Your task to perform on an android device: Go to location settings Image 0: 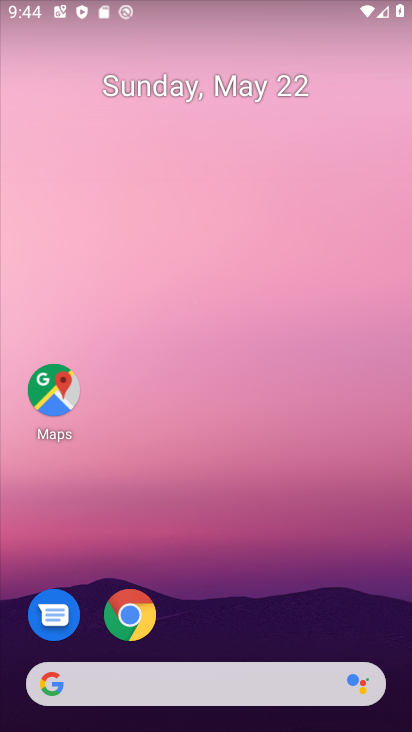
Step 0: drag from (327, 558) to (320, 0)
Your task to perform on an android device: Go to location settings Image 1: 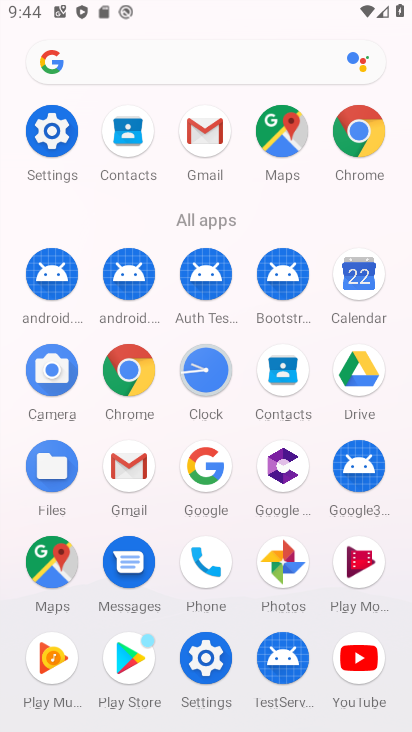
Step 1: click (62, 129)
Your task to perform on an android device: Go to location settings Image 2: 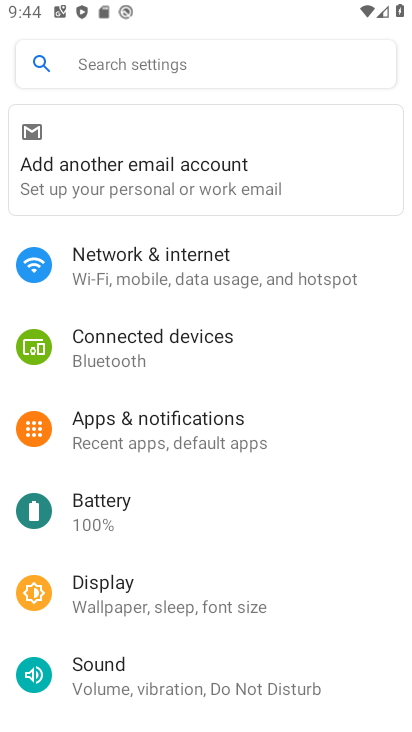
Step 2: drag from (201, 614) to (237, 222)
Your task to perform on an android device: Go to location settings Image 3: 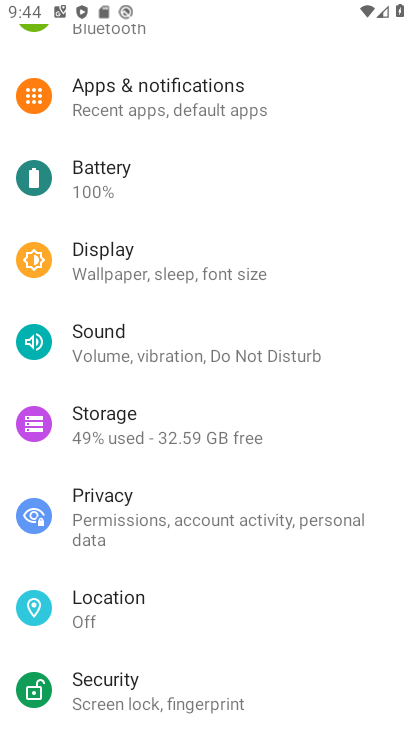
Step 3: click (99, 601)
Your task to perform on an android device: Go to location settings Image 4: 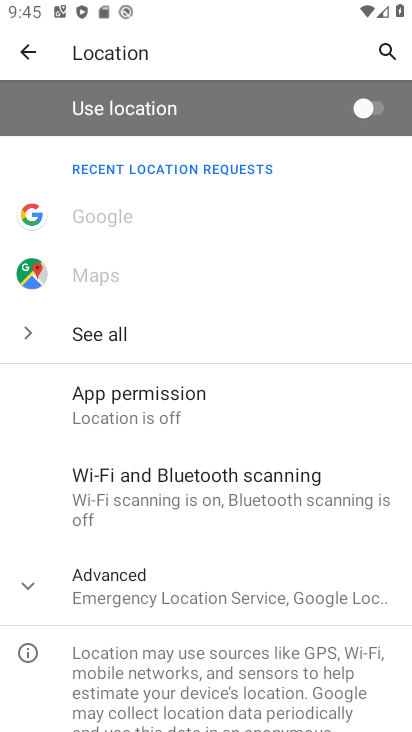
Step 4: task complete